Your task to perform on an android device: Open Google Chrome and open the bookmarks view Image 0: 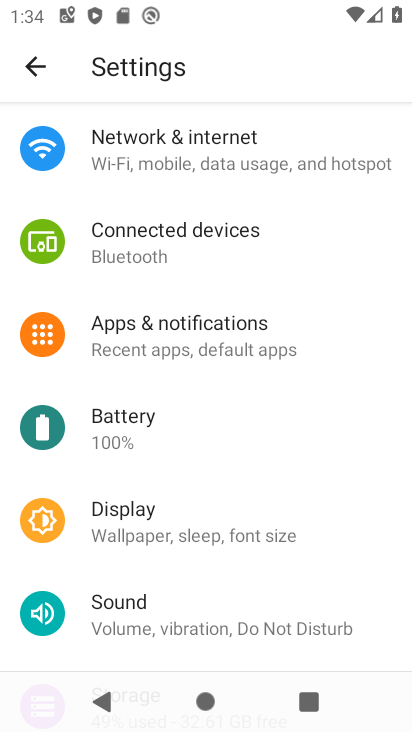
Step 0: press home button
Your task to perform on an android device: Open Google Chrome and open the bookmarks view Image 1: 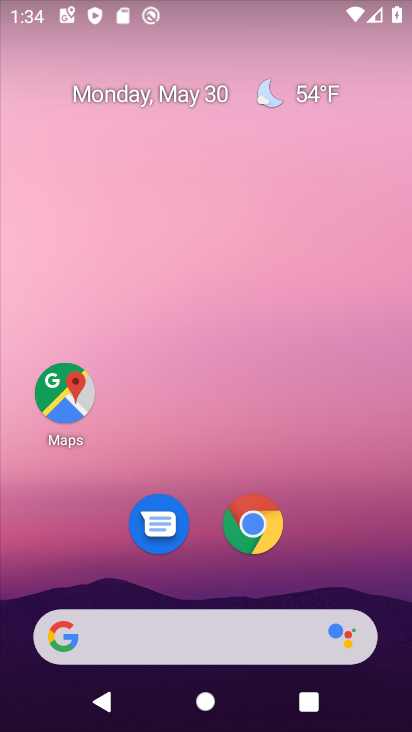
Step 1: click (254, 530)
Your task to perform on an android device: Open Google Chrome and open the bookmarks view Image 2: 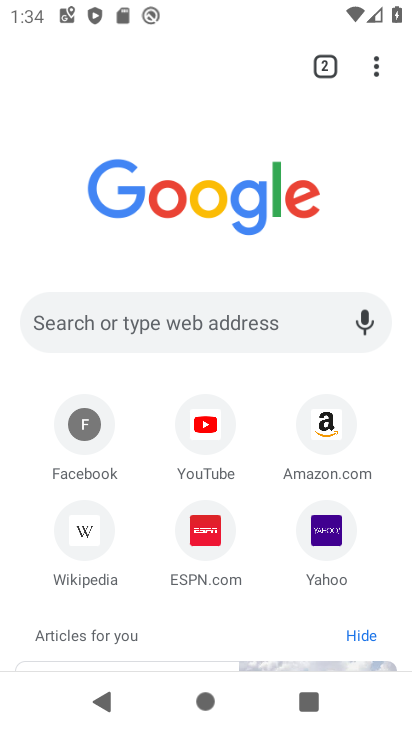
Step 2: click (369, 75)
Your task to perform on an android device: Open Google Chrome and open the bookmarks view Image 3: 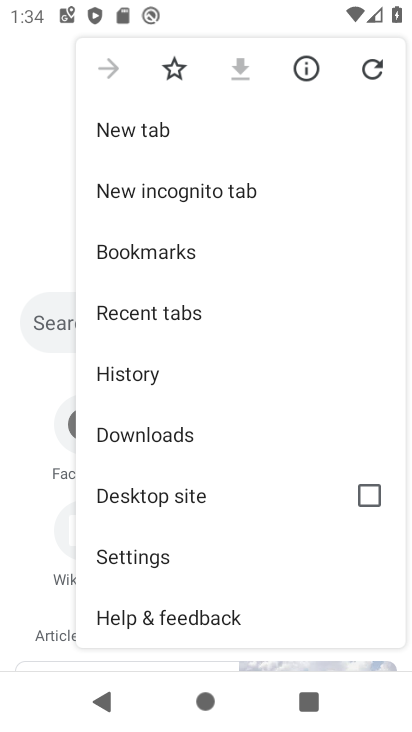
Step 3: click (197, 245)
Your task to perform on an android device: Open Google Chrome and open the bookmarks view Image 4: 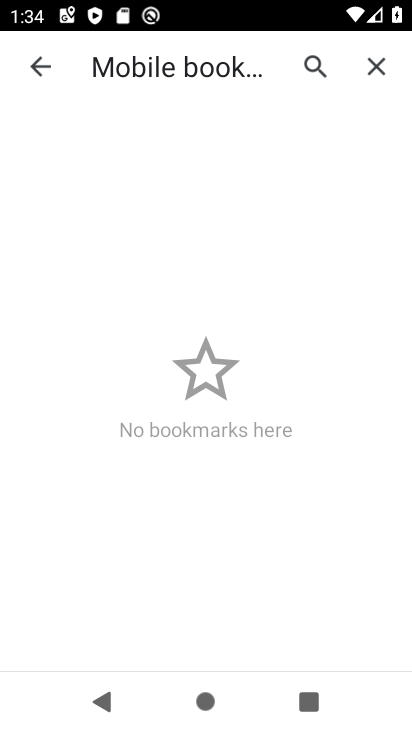
Step 4: task complete